Your task to perform on an android device: toggle priority inbox in the gmail app Image 0: 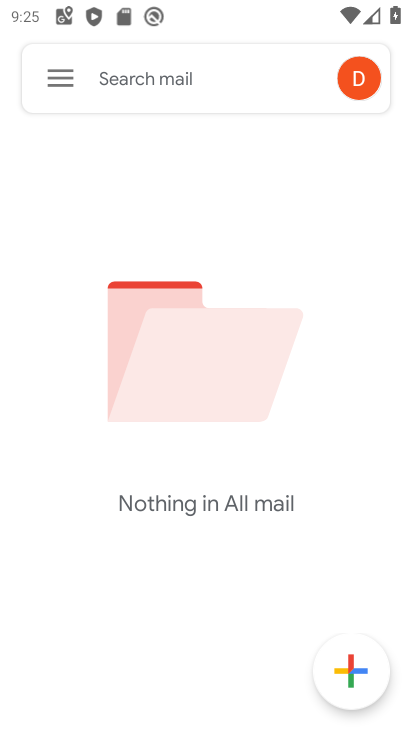
Step 0: click (62, 90)
Your task to perform on an android device: toggle priority inbox in the gmail app Image 1: 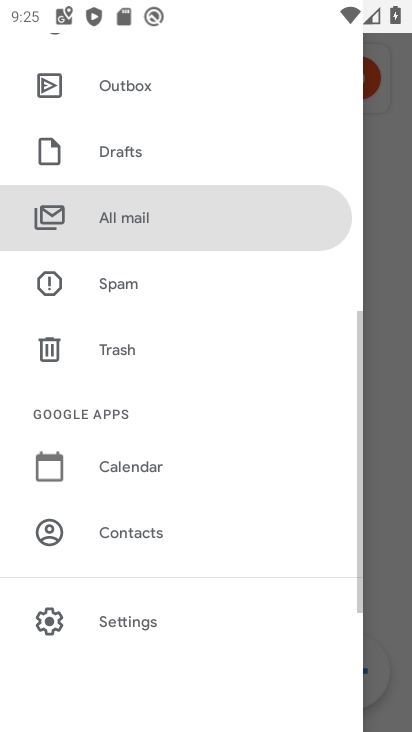
Step 1: click (112, 622)
Your task to perform on an android device: toggle priority inbox in the gmail app Image 2: 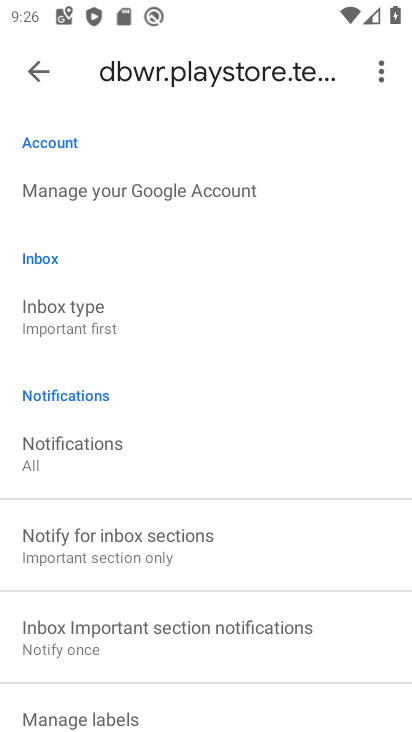
Step 2: click (70, 324)
Your task to perform on an android device: toggle priority inbox in the gmail app Image 3: 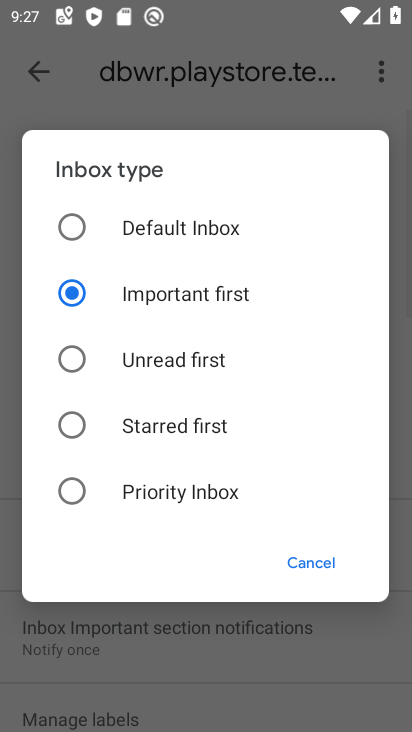
Step 3: click (171, 492)
Your task to perform on an android device: toggle priority inbox in the gmail app Image 4: 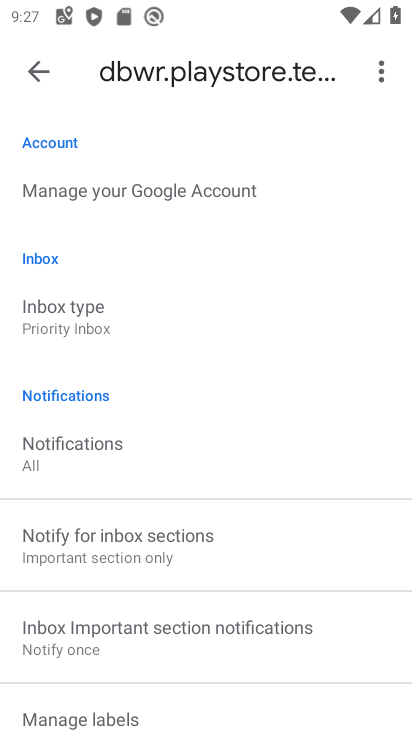
Step 4: task complete